Your task to perform on an android device: open app "YouTube Kids" Image 0: 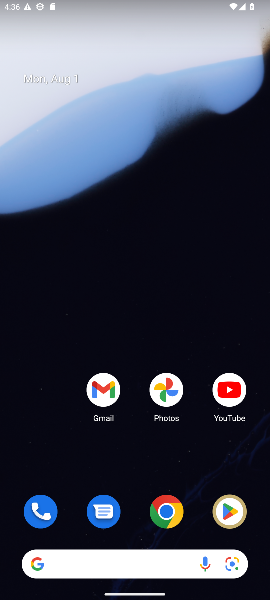
Step 0: click (227, 512)
Your task to perform on an android device: open app "YouTube Kids" Image 1: 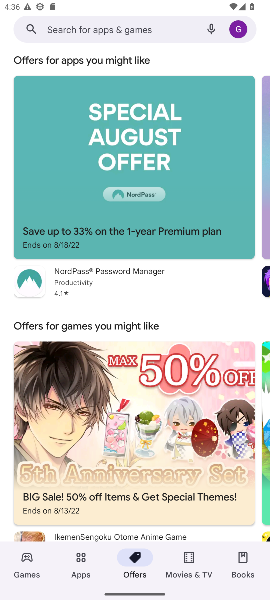
Step 1: click (138, 23)
Your task to perform on an android device: open app "YouTube Kids" Image 2: 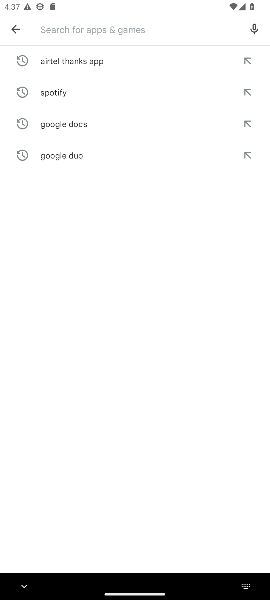
Step 2: type "youtubekids"
Your task to perform on an android device: open app "YouTube Kids" Image 3: 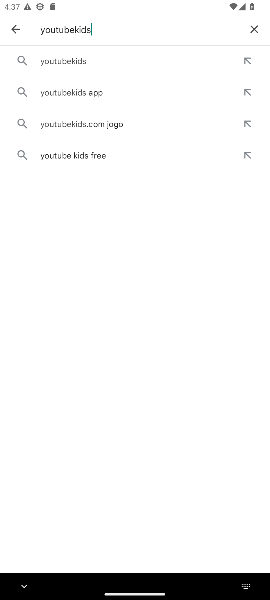
Step 3: click (52, 56)
Your task to perform on an android device: open app "YouTube Kids" Image 4: 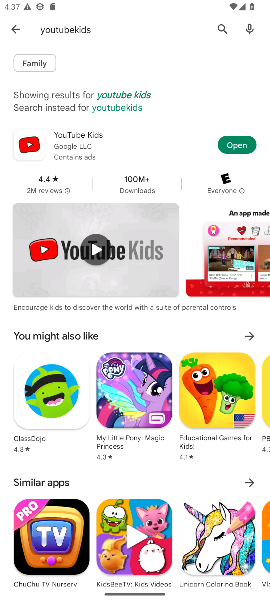
Step 4: click (235, 136)
Your task to perform on an android device: open app "YouTube Kids" Image 5: 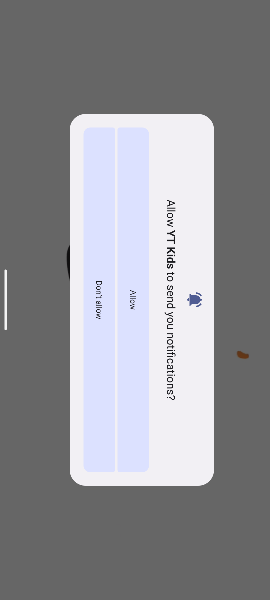
Step 5: click (132, 291)
Your task to perform on an android device: open app "YouTube Kids" Image 6: 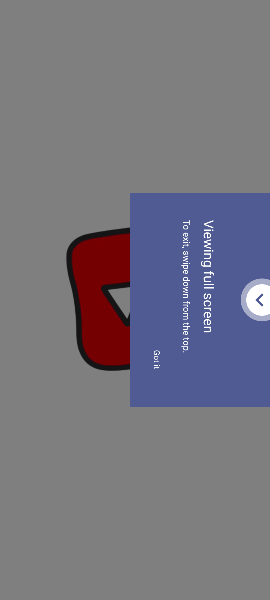
Step 6: task complete